Your task to perform on an android device: Go to wifi settings Image 0: 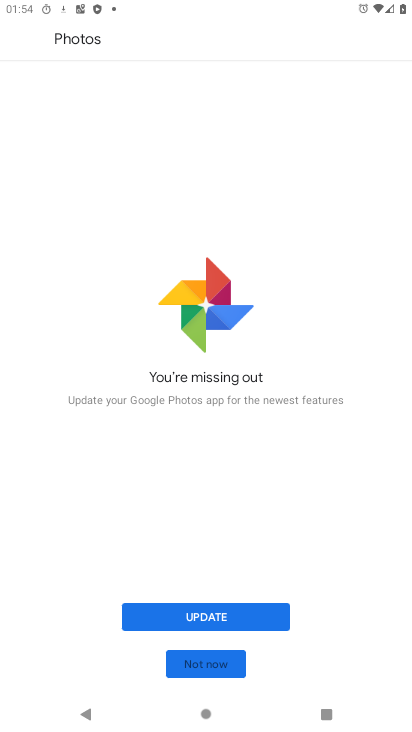
Step 0: press home button
Your task to perform on an android device: Go to wifi settings Image 1: 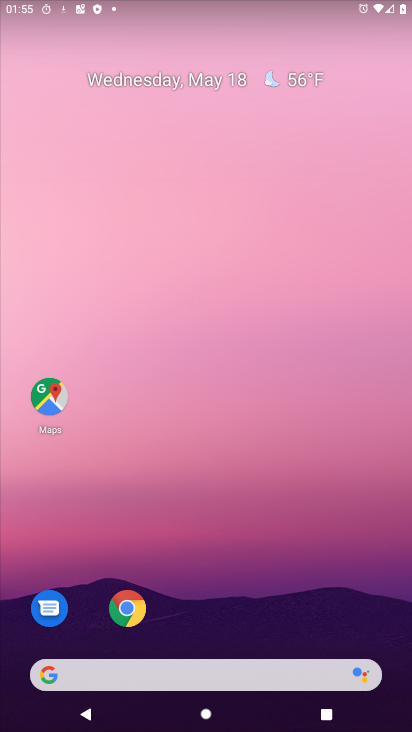
Step 1: drag from (240, 687) to (143, 179)
Your task to perform on an android device: Go to wifi settings Image 2: 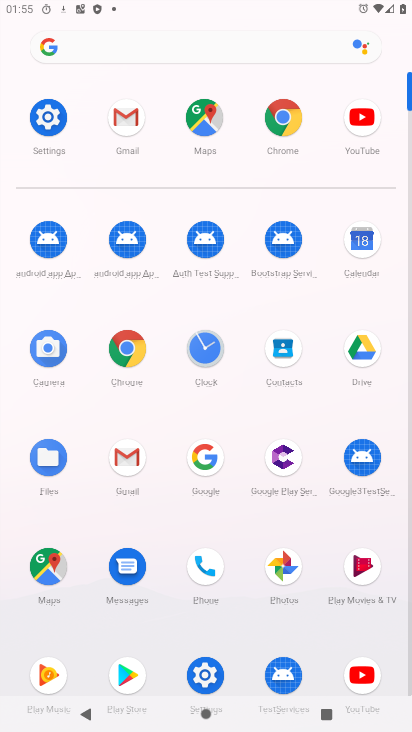
Step 2: click (44, 130)
Your task to perform on an android device: Go to wifi settings Image 3: 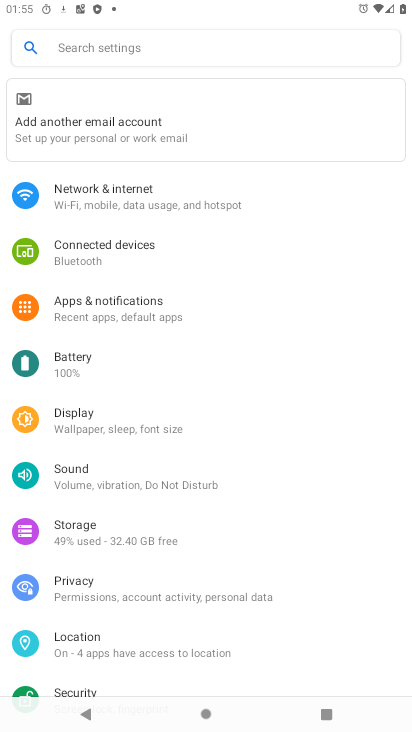
Step 3: click (116, 138)
Your task to perform on an android device: Go to wifi settings Image 4: 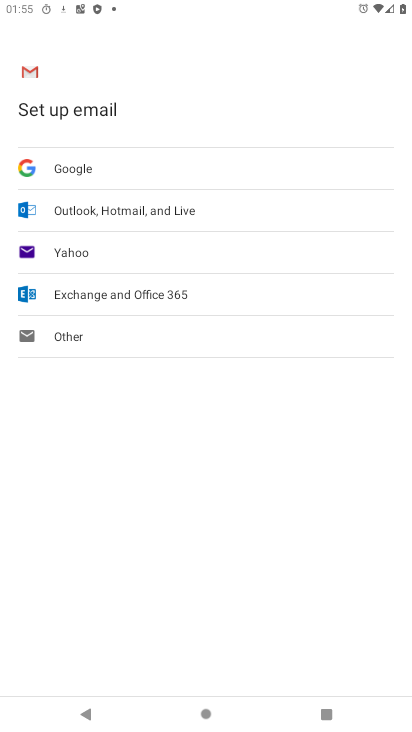
Step 4: press back button
Your task to perform on an android device: Go to wifi settings Image 5: 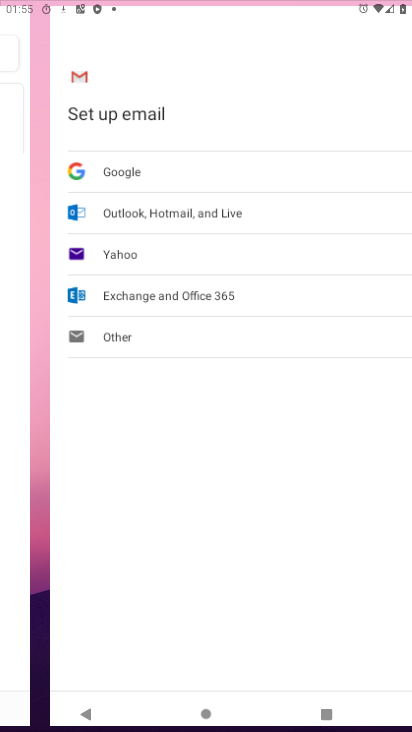
Step 5: press home button
Your task to perform on an android device: Go to wifi settings Image 6: 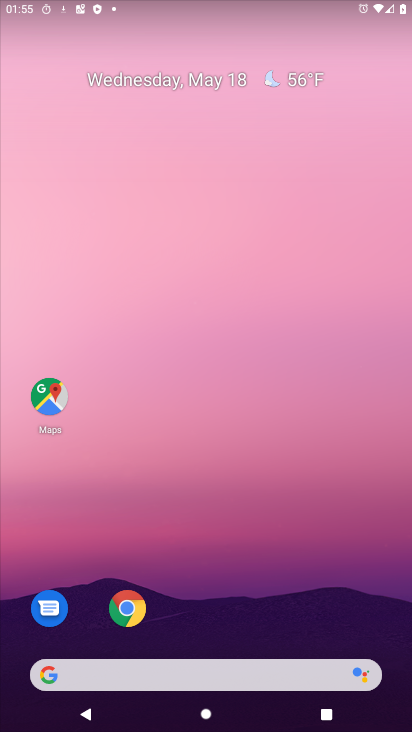
Step 6: drag from (266, 691) to (168, 148)
Your task to perform on an android device: Go to wifi settings Image 7: 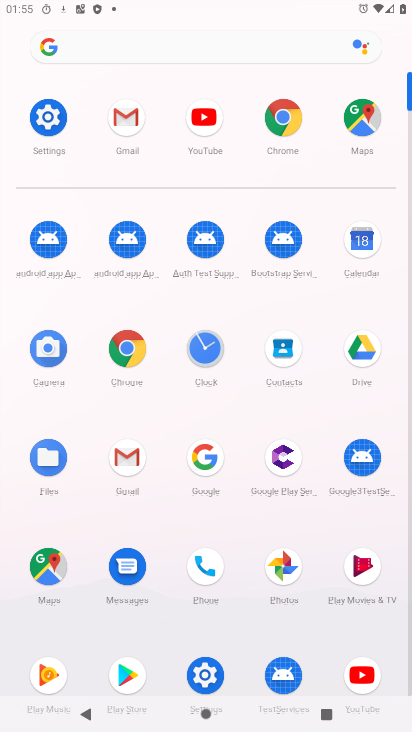
Step 7: click (48, 130)
Your task to perform on an android device: Go to wifi settings Image 8: 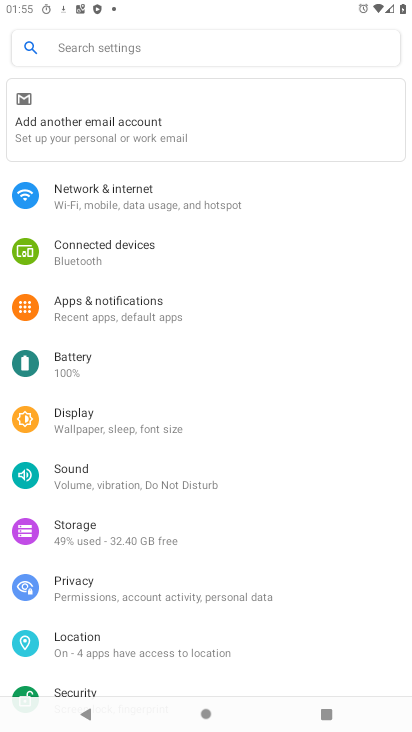
Step 8: click (126, 200)
Your task to perform on an android device: Go to wifi settings Image 9: 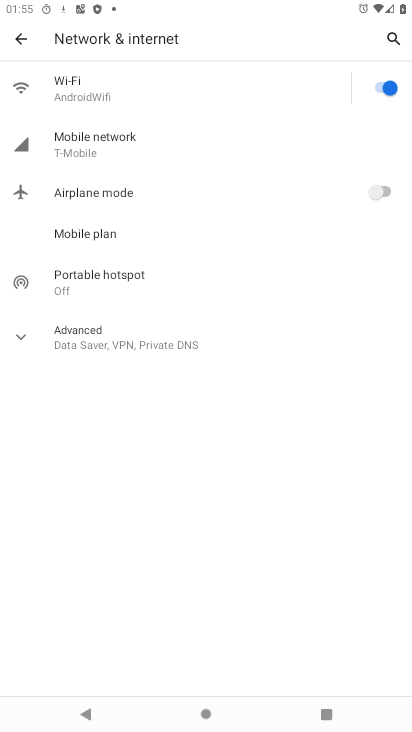
Step 9: click (219, 85)
Your task to perform on an android device: Go to wifi settings Image 10: 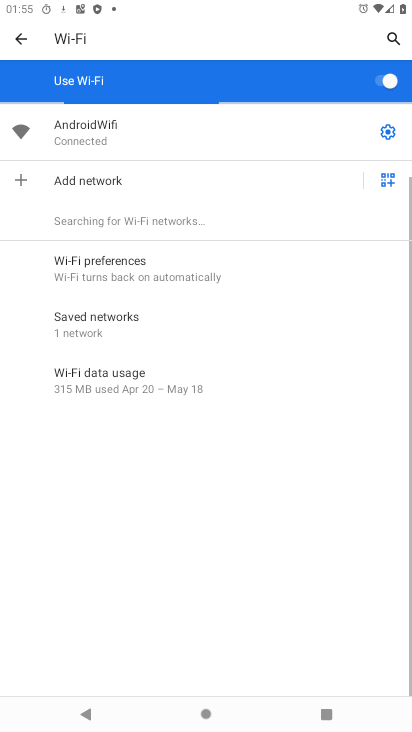
Step 10: task complete